Your task to perform on an android device: check data usage Image 0: 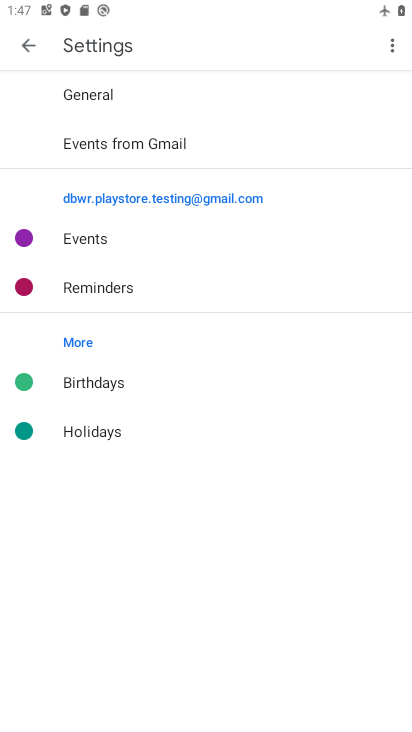
Step 0: press home button
Your task to perform on an android device: check data usage Image 1: 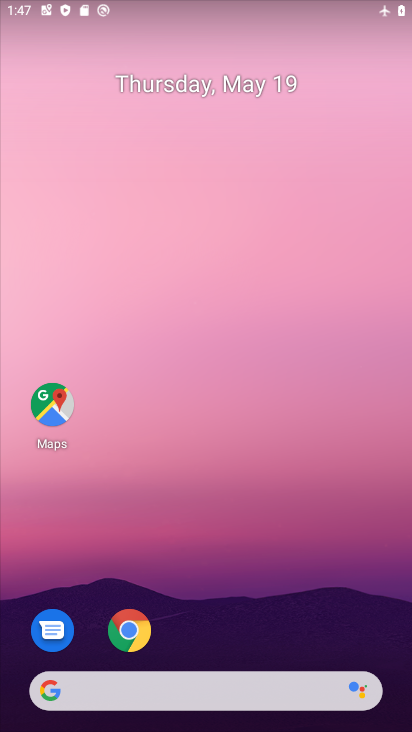
Step 1: drag from (225, 671) to (102, 37)
Your task to perform on an android device: check data usage Image 2: 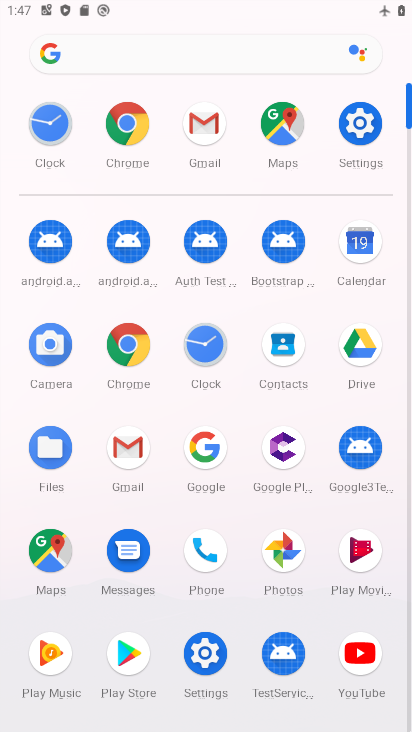
Step 2: click (345, 134)
Your task to perform on an android device: check data usage Image 3: 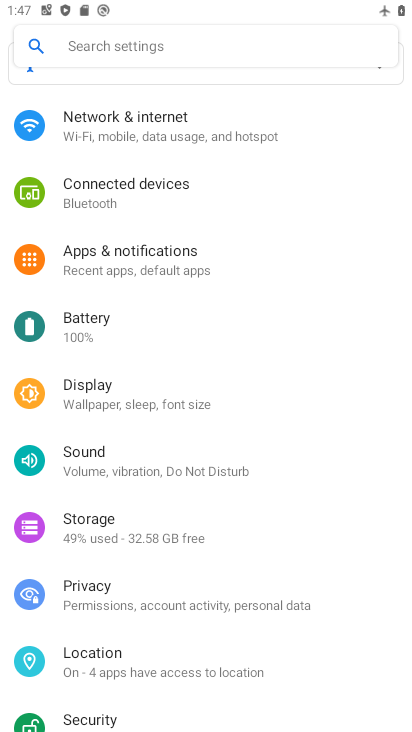
Step 3: click (196, 144)
Your task to perform on an android device: check data usage Image 4: 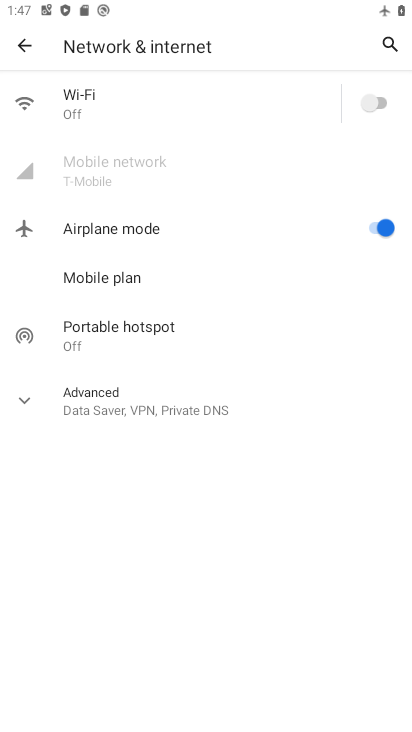
Step 4: click (125, 162)
Your task to perform on an android device: check data usage Image 5: 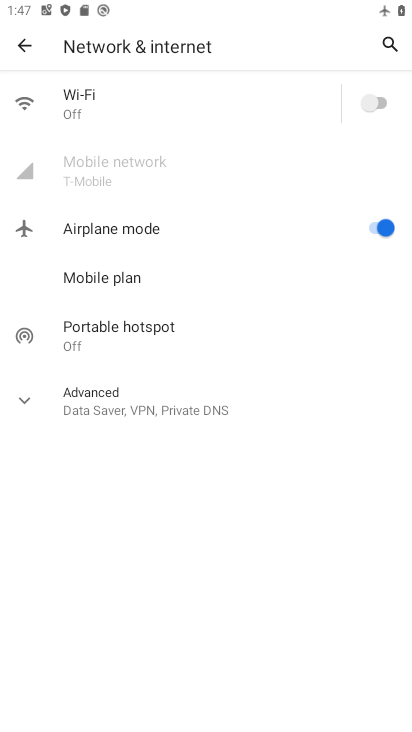
Step 5: task complete